Your task to perform on an android device: turn smart compose on in the gmail app Image 0: 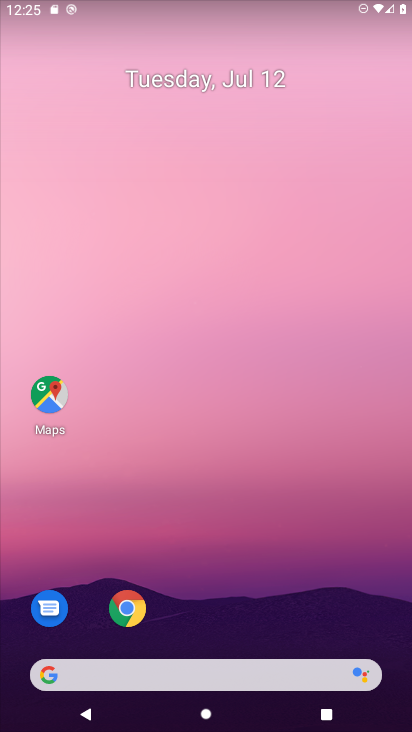
Step 0: drag from (219, 665) to (155, 148)
Your task to perform on an android device: turn smart compose on in the gmail app Image 1: 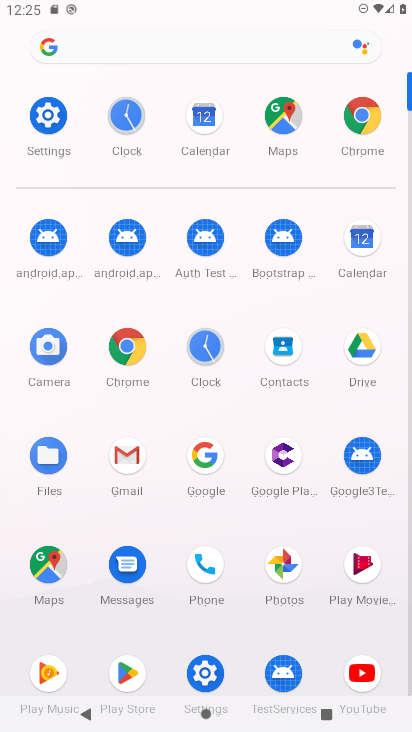
Step 1: click (126, 447)
Your task to perform on an android device: turn smart compose on in the gmail app Image 2: 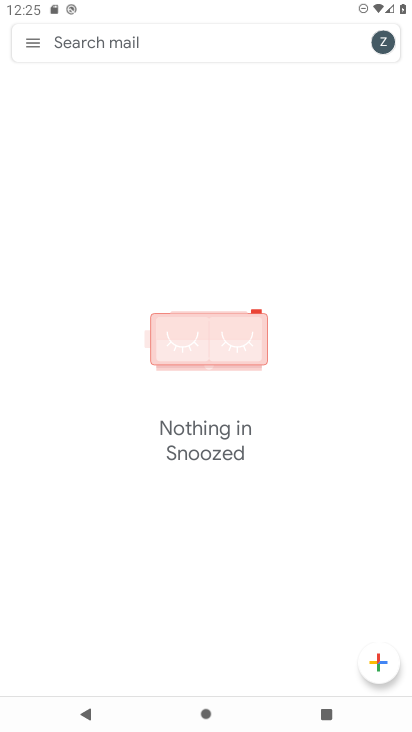
Step 2: click (31, 35)
Your task to perform on an android device: turn smart compose on in the gmail app Image 3: 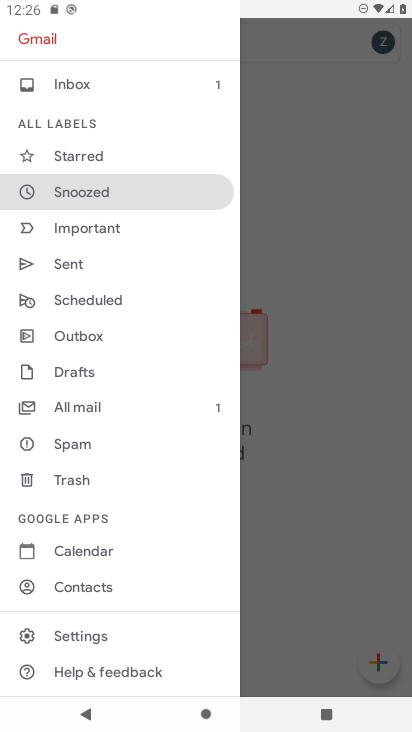
Step 3: click (52, 631)
Your task to perform on an android device: turn smart compose on in the gmail app Image 4: 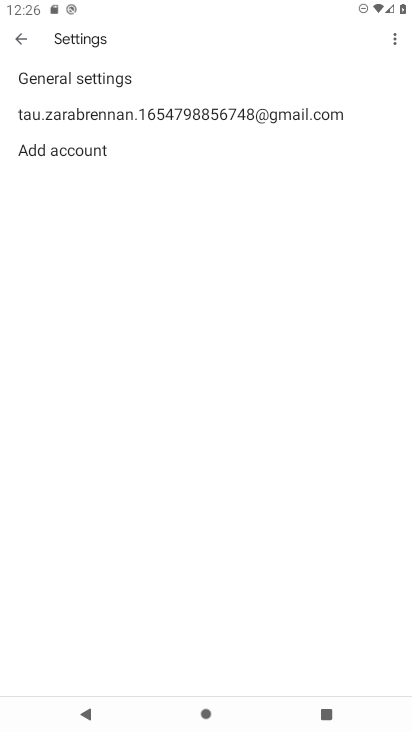
Step 4: click (73, 124)
Your task to perform on an android device: turn smart compose on in the gmail app Image 5: 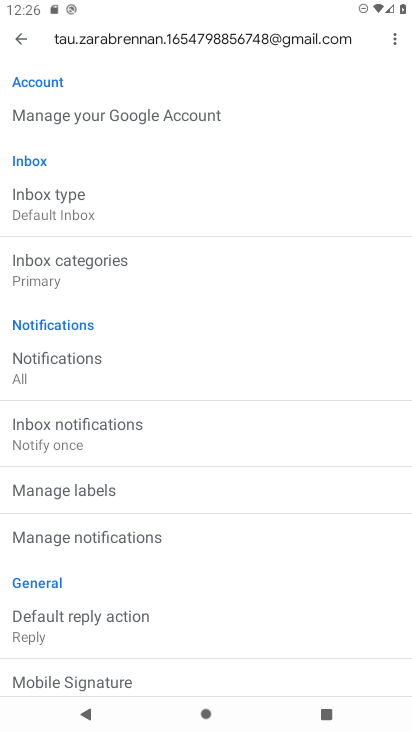
Step 5: task complete